Your task to perform on an android device: Go to Google Image 0: 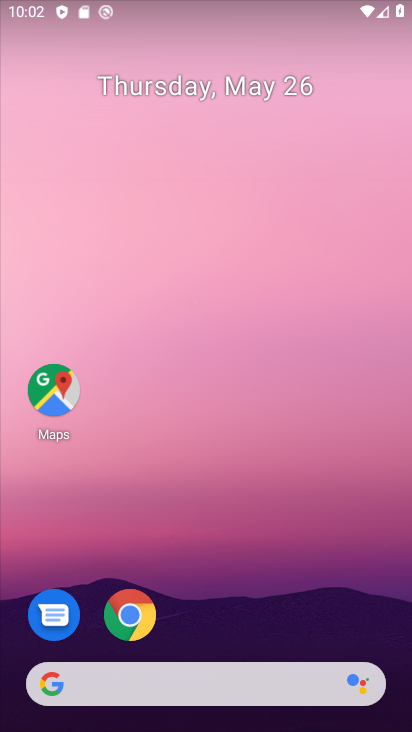
Step 0: drag from (320, 607) to (255, 3)
Your task to perform on an android device: Go to Google Image 1: 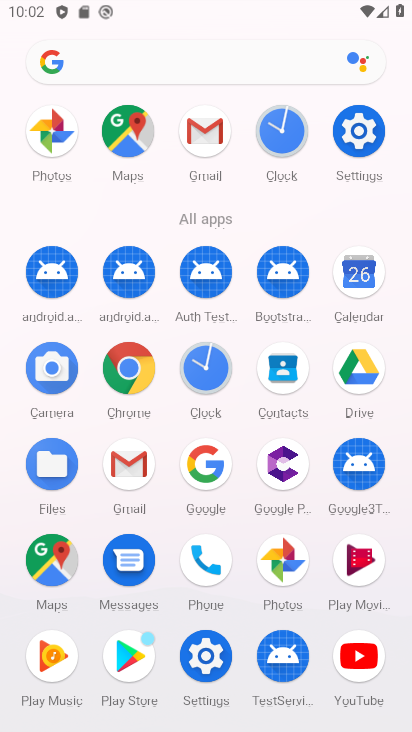
Step 1: click (199, 460)
Your task to perform on an android device: Go to Google Image 2: 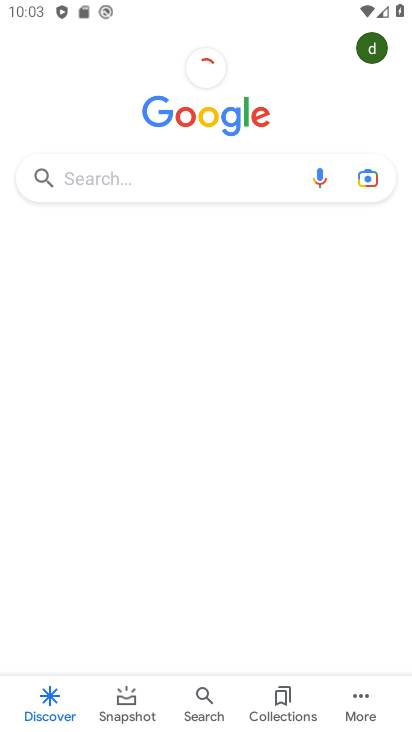
Step 2: task complete